Your task to perform on an android device: See recent photos Image 0: 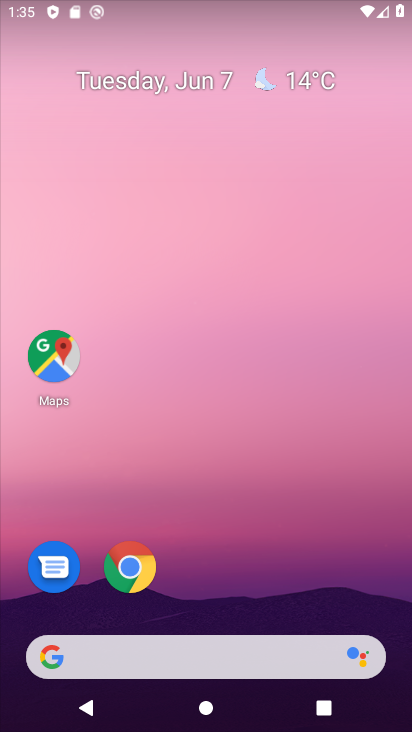
Step 0: drag from (325, 544) to (407, 48)
Your task to perform on an android device: See recent photos Image 1: 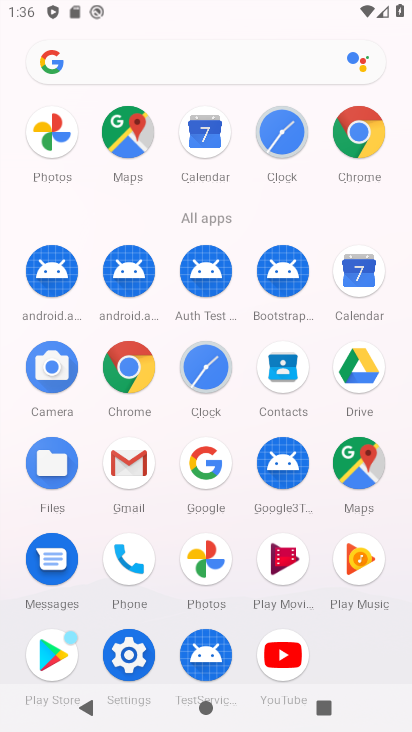
Step 1: click (52, 140)
Your task to perform on an android device: See recent photos Image 2: 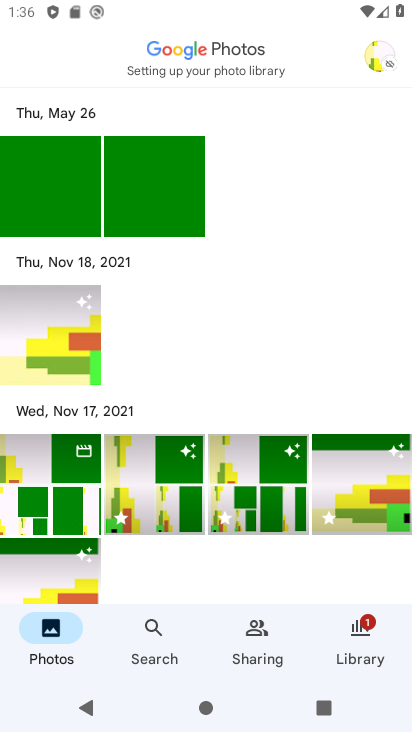
Step 2: click (74, 496)
Your task to perform on an android device: See recent photos Image 3: 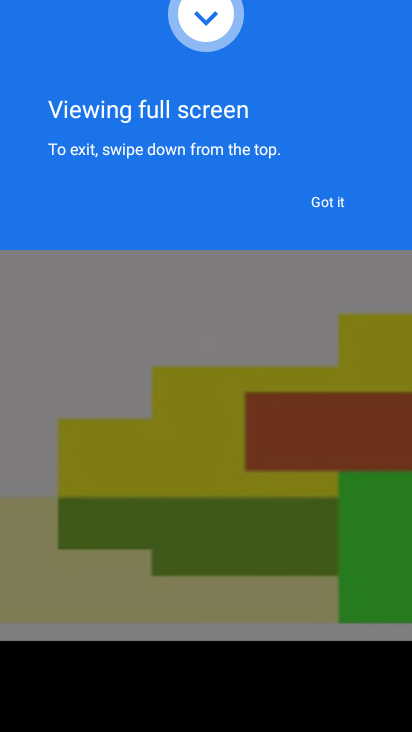
Step 3: task complete